Your task to perform on an android device: What's the weather today? Image 0: 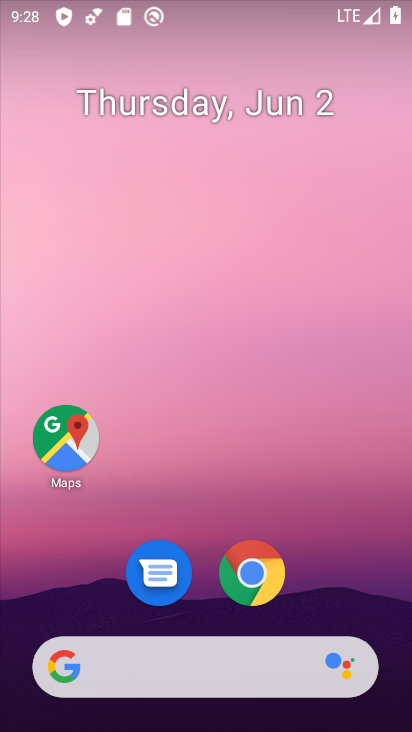
Step 0: click (250, 575)
Your task to perform on an android device: What's the weather today? Image 1: 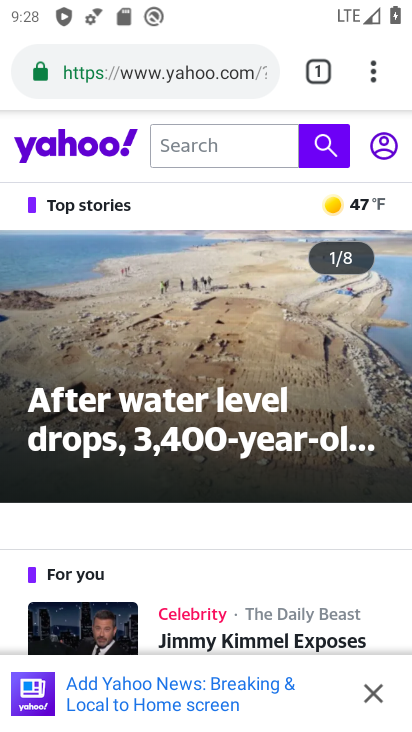
Step 1: click (238, 69)
Your task to perform on an android device: What's the weather today? Image 2: 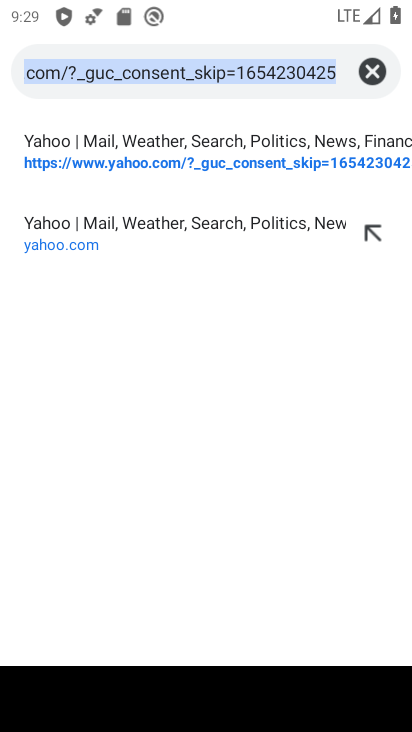
Step 2: type "weather"
Your task to perform on an android device: What's the weather today? Image 3: 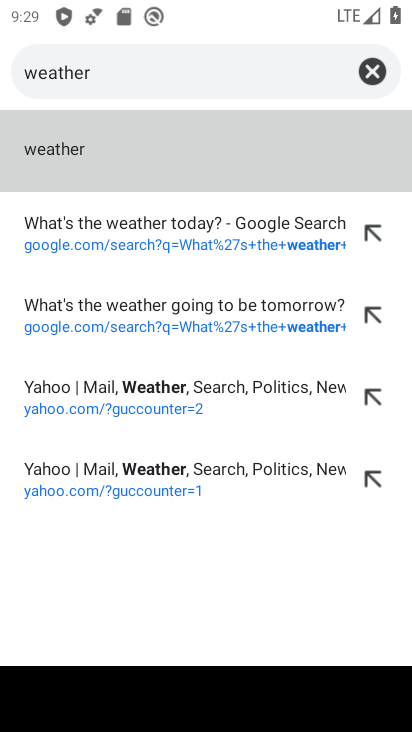
Step 3: click (46, 158)
Your task to perform on an android device: What's the weather today? Image 4: 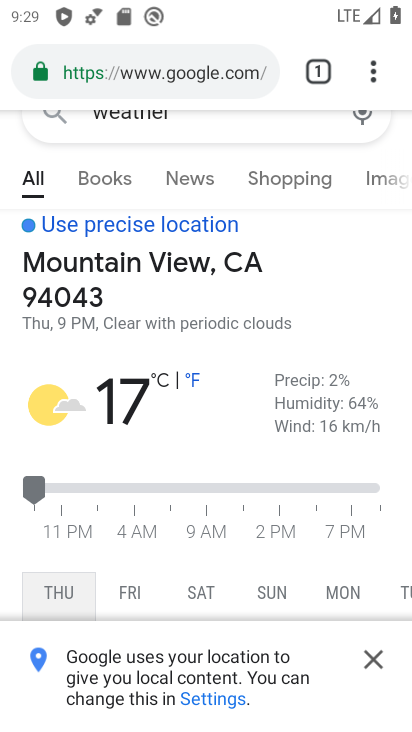
Step 4: task complete